Your task to perform on an android device: turn notification dots off Image 0: 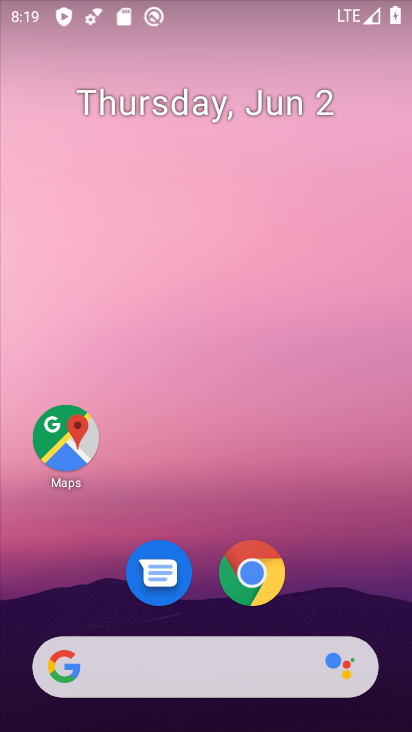
Step 0: drag from (380, 581) to (339, 1)
Your task to perform on an android device: turn notification dots off Image 1: 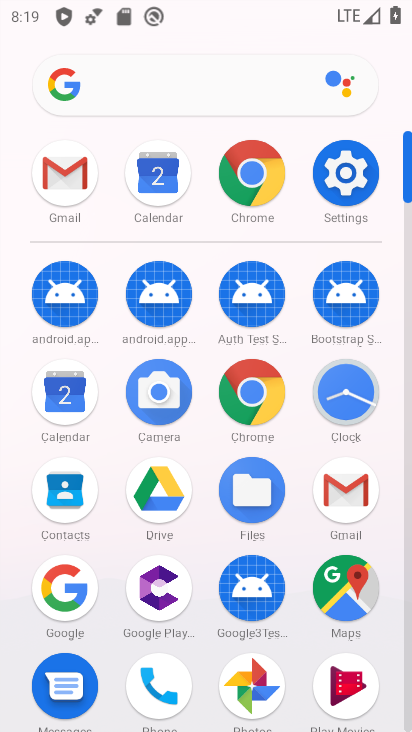
Step 1: click (346, 197)
Your task to perform on an android device: turn notification dots off Image 2: 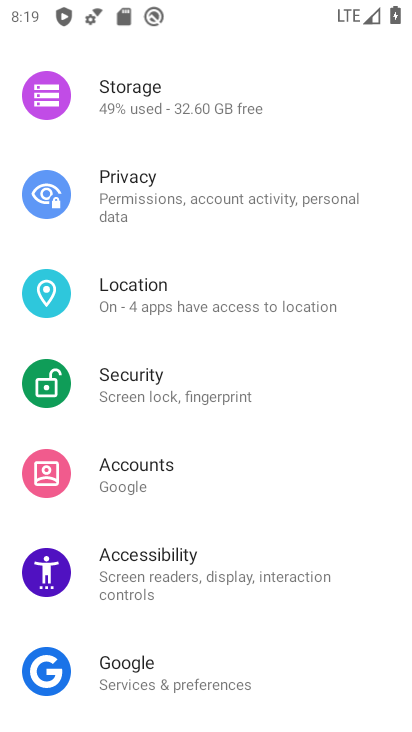
Step 2: drag from (227, 345) to (190, 684)
Your task to perform on an android device: turn notification dots off Image 3: 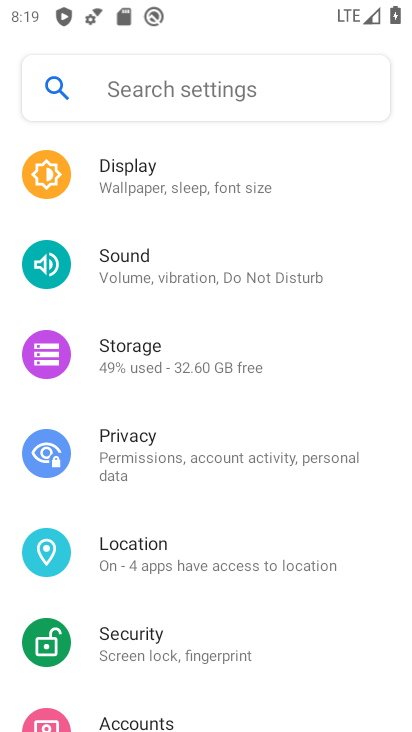
Step 3: drag from (222, 301) to (188, 641)
Your task to perform on an android device: turn notification dots off Image 4: 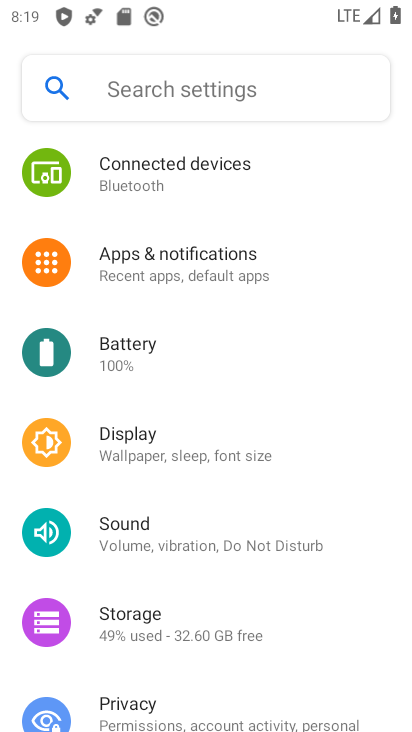
Step 4: drag from (217, 194) to (186, 501)
Your task to perform on an android device: turn notification dots off Image 5: 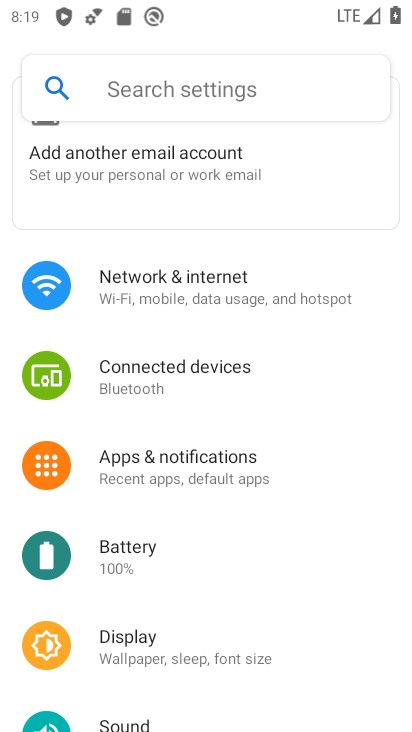
Step 5: click (209, 464)
Your task to perform on an android device: turn notification dots off Image 6: 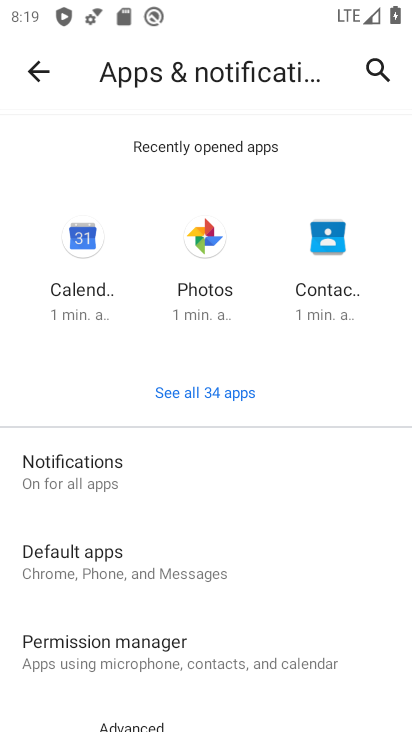
Step 6: click (51, 472)
Your task to perform on an android device: turn notification dots off Image 7: 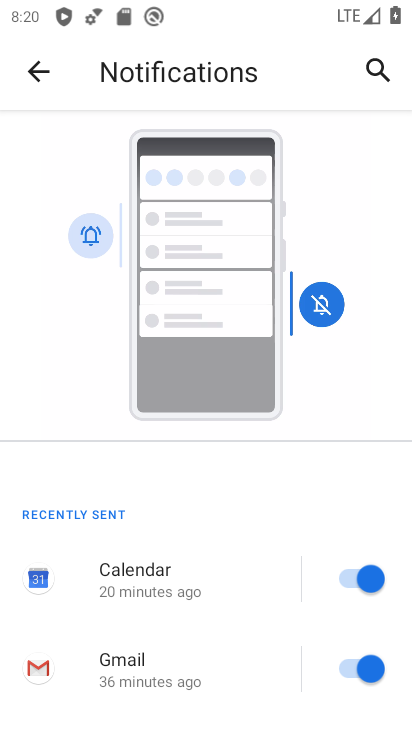
Step 7: drag from (220, 665) to (246, 157)
Your task to perform on an android device: turn notification dots off Image 8: 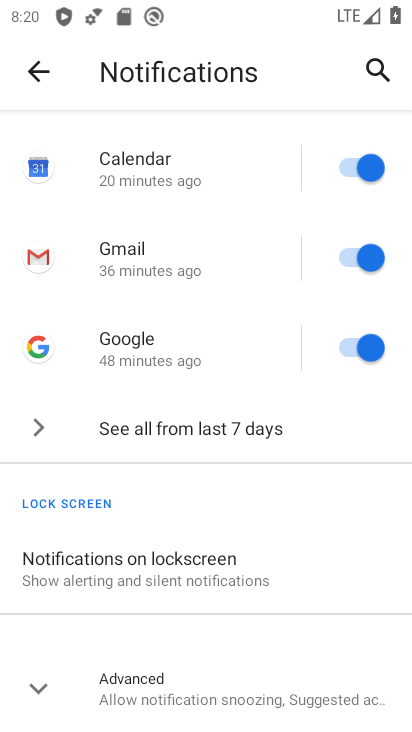
Step 8: drag from (206, 575) to (163, 141)
Your task to perform on an android device: turn notification dots off Image 9: 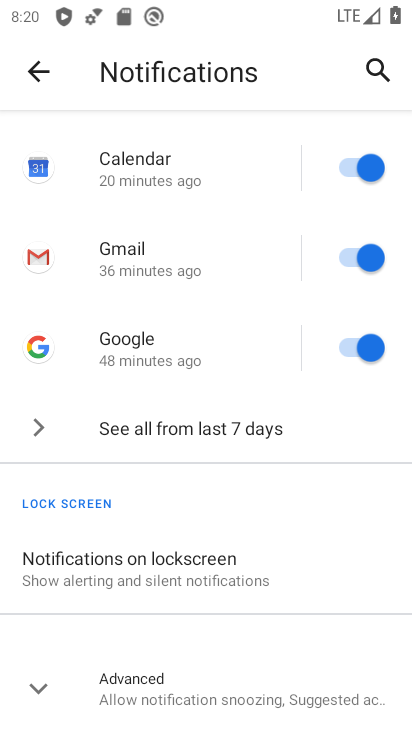
Step 9: click (151, 692)
Your task to perform on an android device: turn notification dots off Image 10: 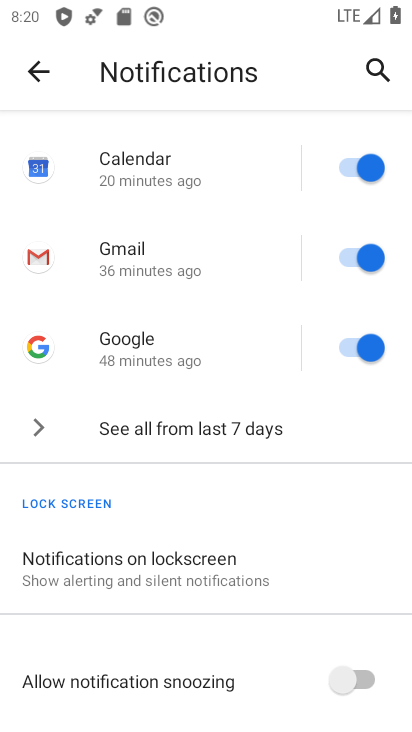
Step 10: drag from (127, 623) to (176, 207)
Your task to perform on an android device: turn notification dots off Image 11: 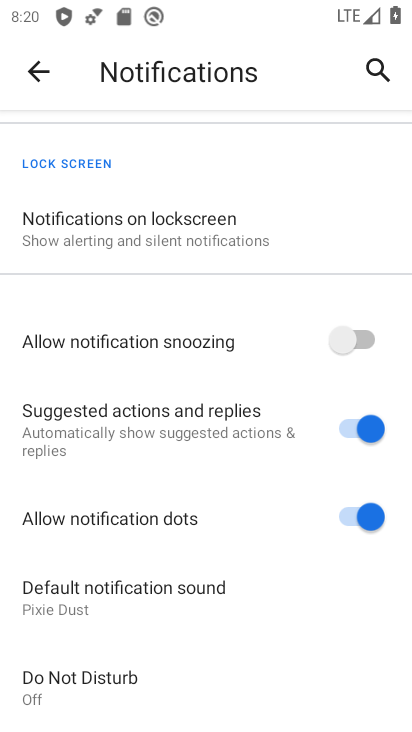
Step 11: click (359, 522)
Your task to perform on an android device: turn notification dots off Image 12: 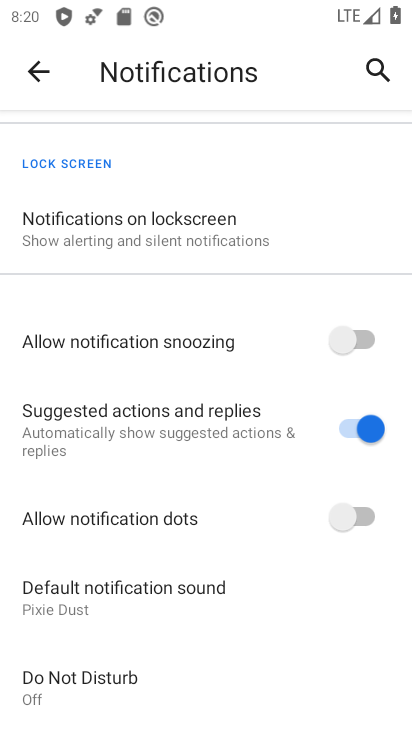
Step 12: task complete